Your task to perform on an android device: Open calendar and show me the fourth week of next month Image 0: 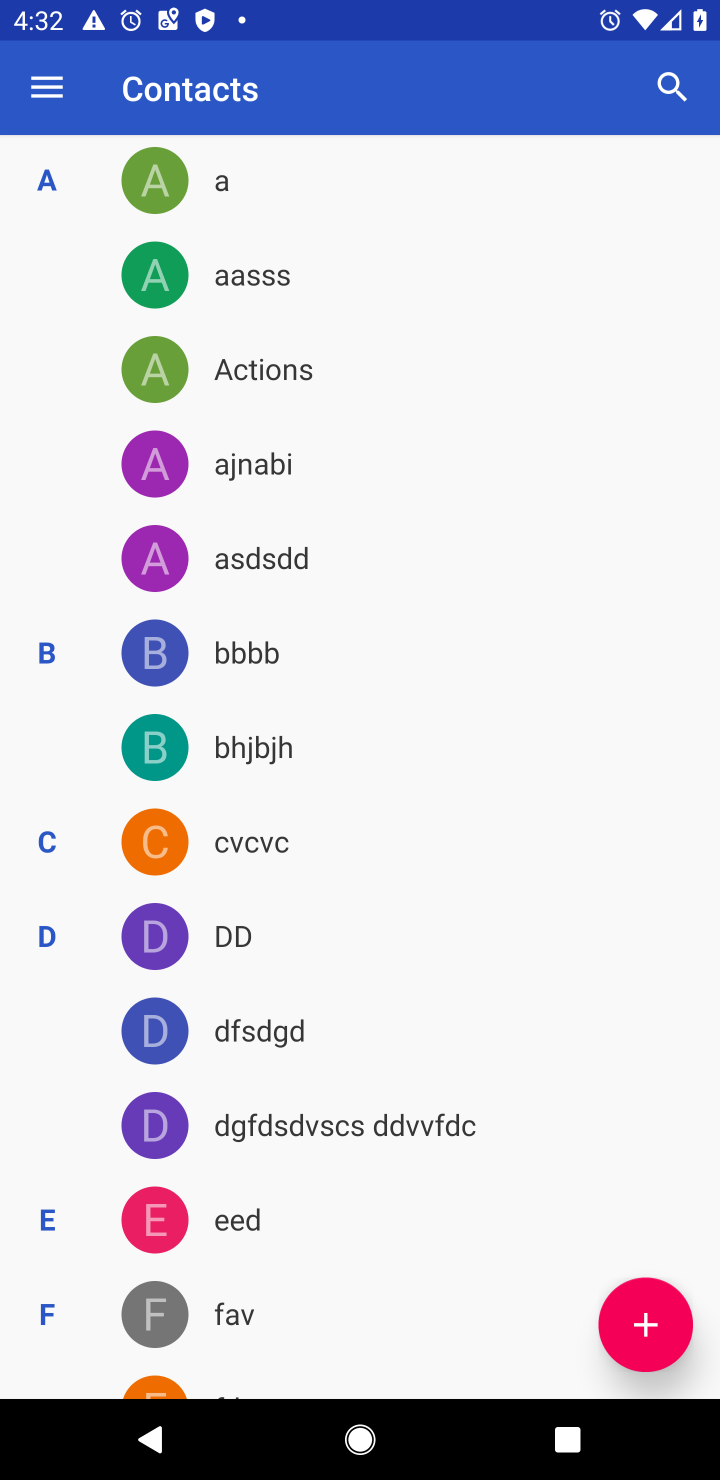
Step 0: press home button
Your task to perform on an android device: Open calendar and show me the fourth week of next month Image 1: 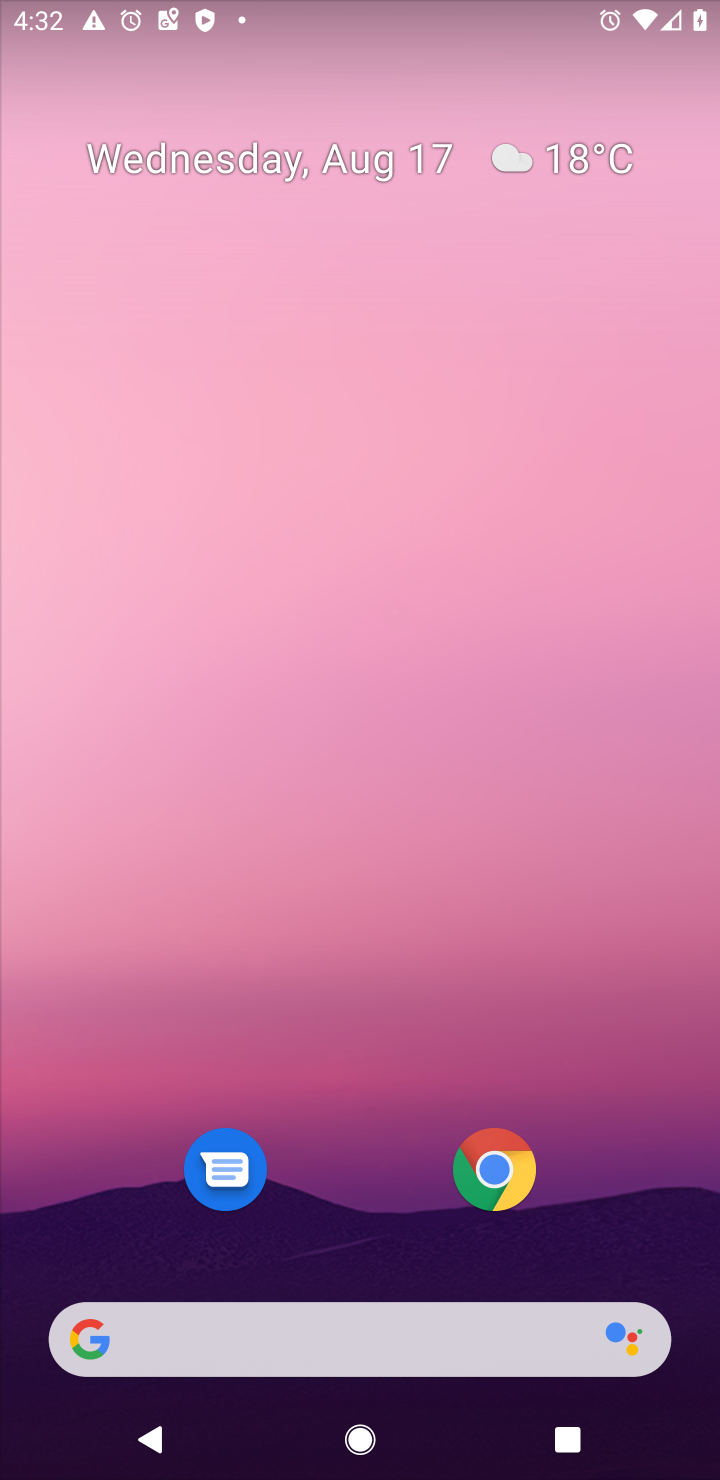
Step 1: drag from (370, 1129) to (336, 95)
Your task to perform on an android device: Open calendar and show me the fourth week of next month Image 2: 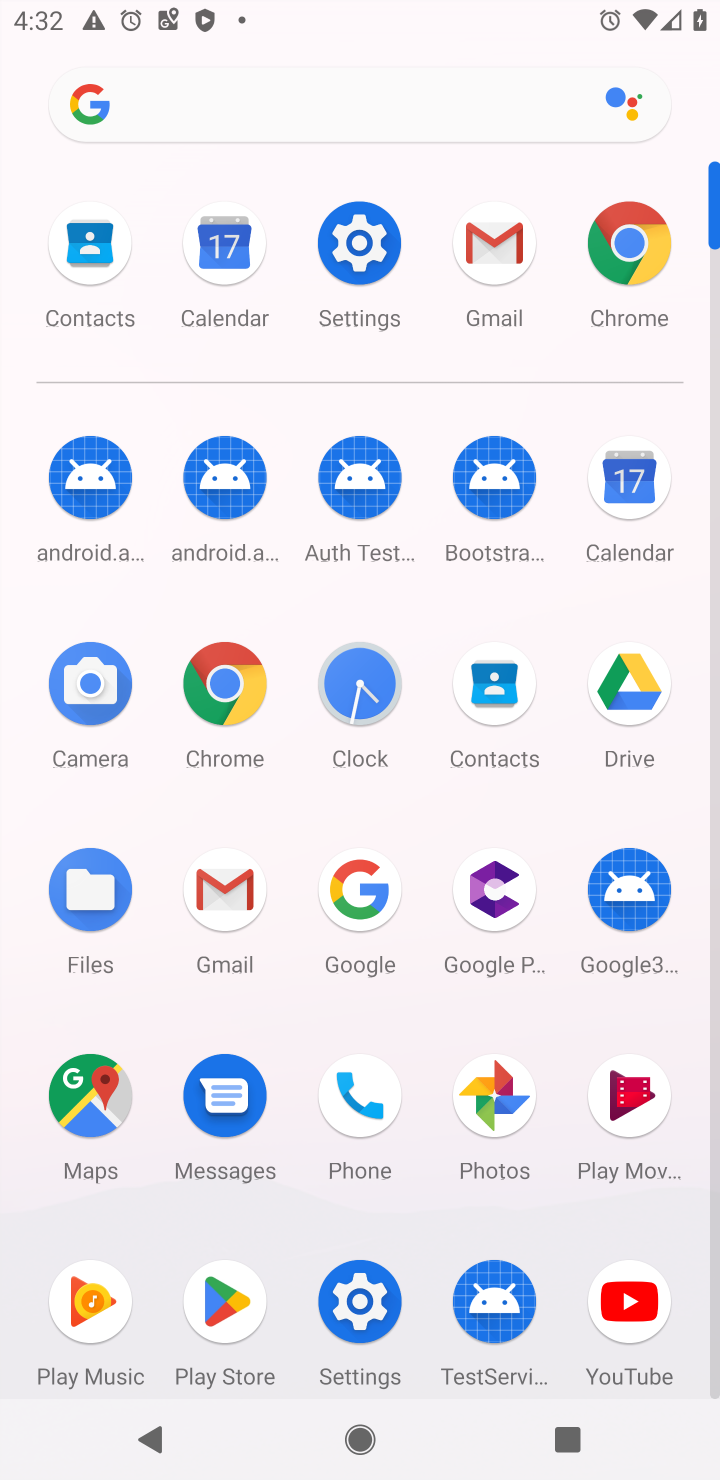
Step 2: click (619, 485)
Your task to perform on an android device: Open calendar and show me the fourth week of next month Image 3: 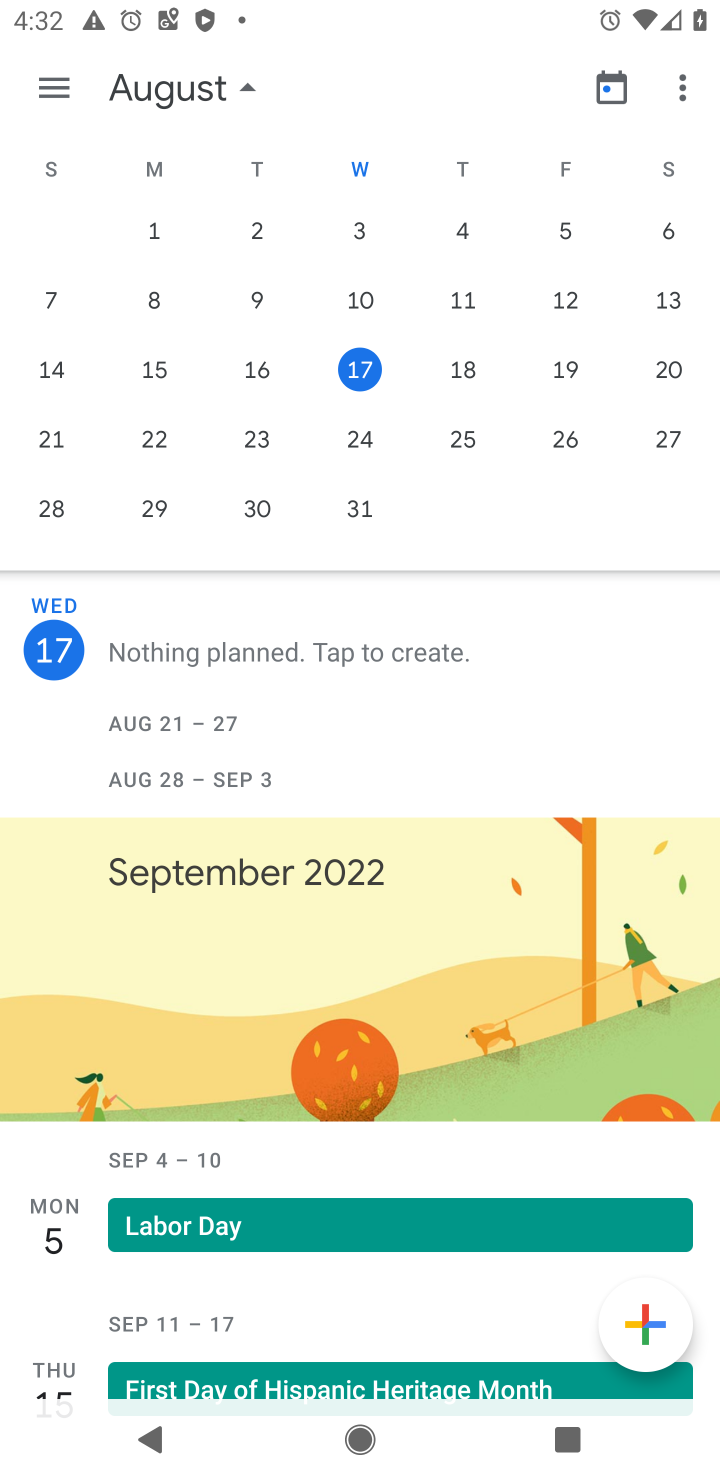
Step 3: drag from (631, 314) to (3, 345)
Your task to perform on an android device: Open calendar and show me the fourth week of next month Image 4: 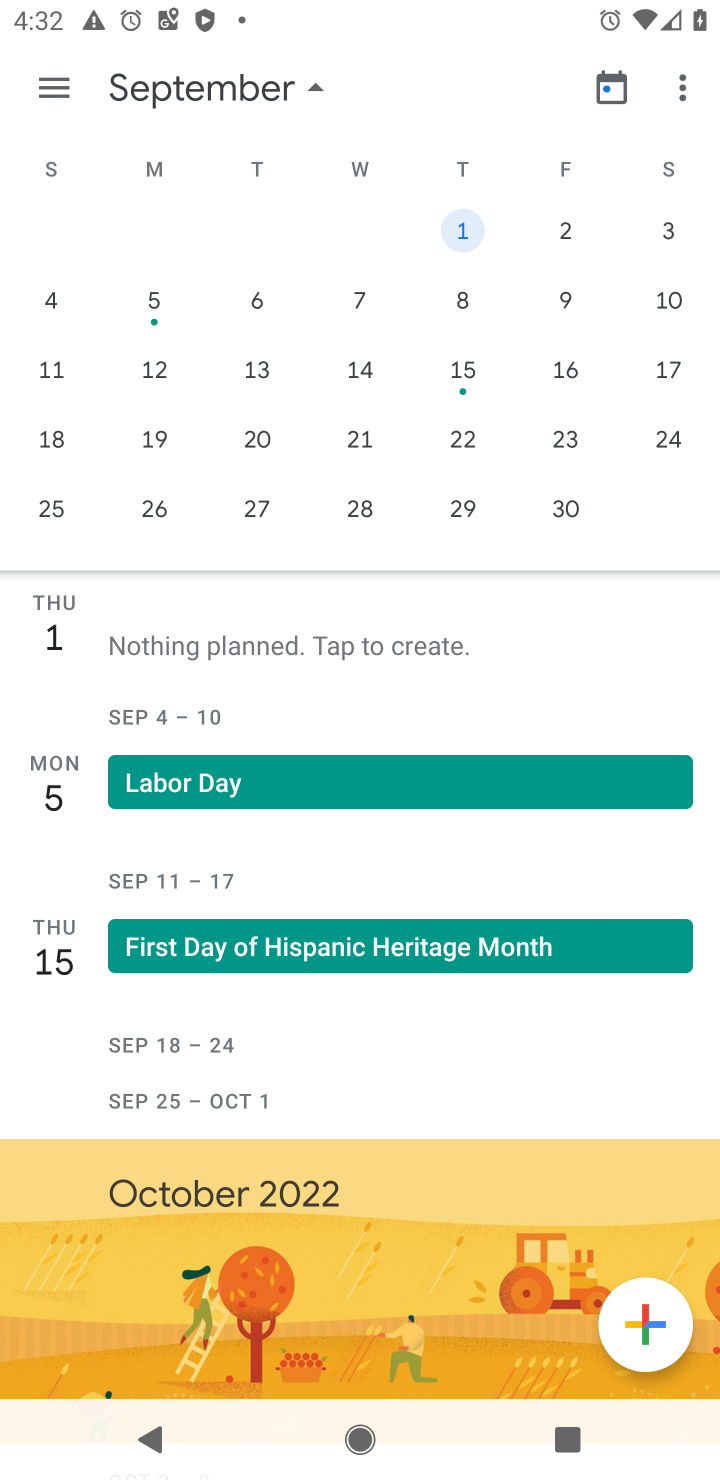
Step 4: click (355, 518)
Your task to perform on an android device: Open calendar and show me the fourth week of next month Image 5: 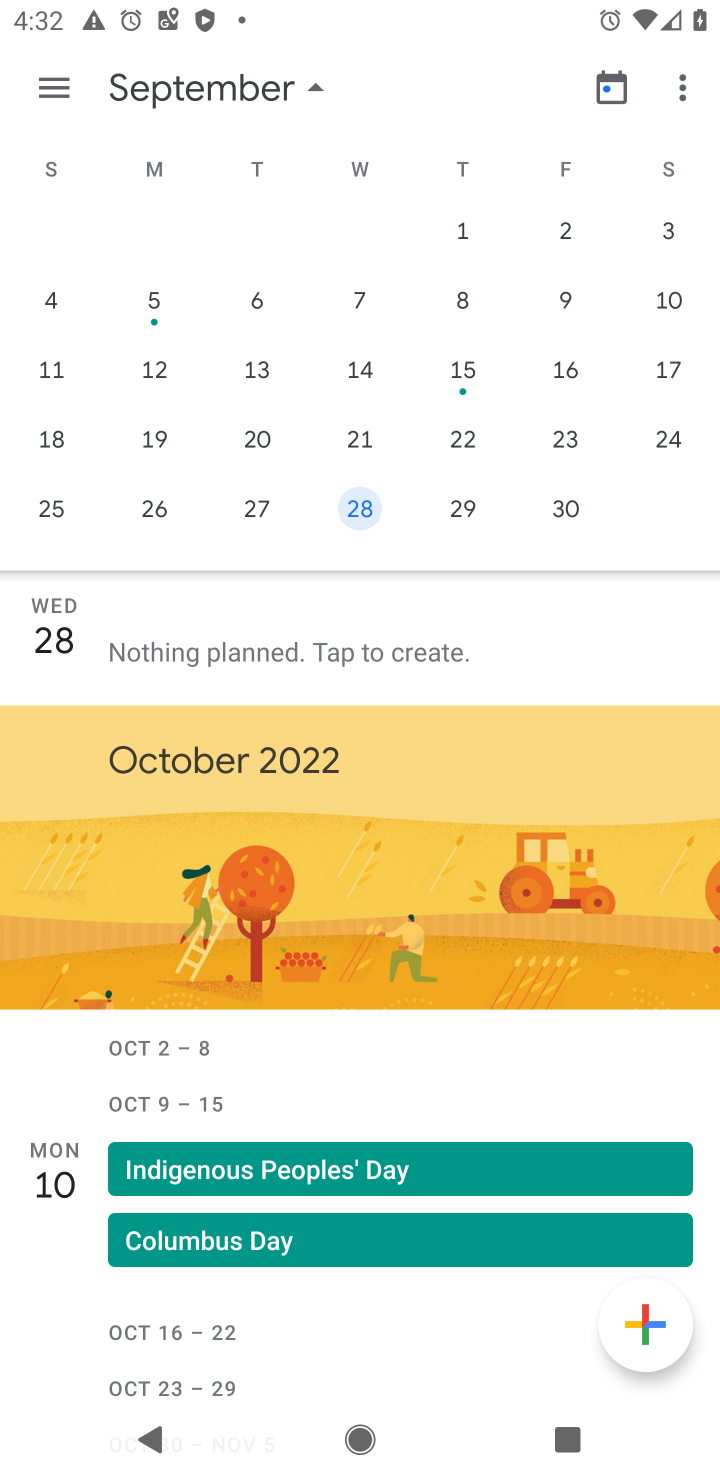
Step 5: task complete